Your task to perform on an android device: When is my next meeting? Image 0: 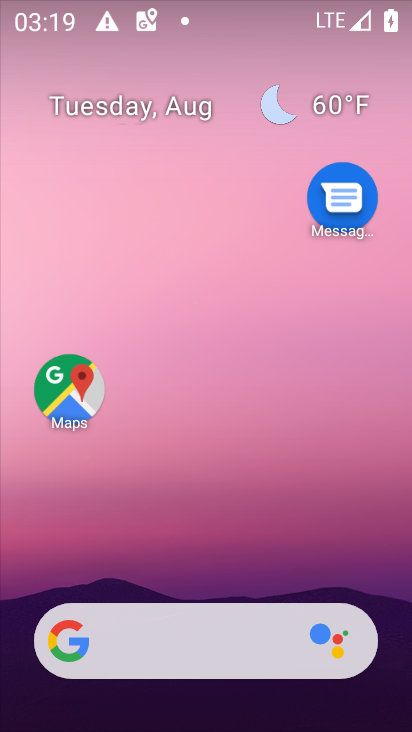
Step 0: drag from (204, 598) to (172, 38)
Your task to perform on an android device: When is my next meeting? Image 1: 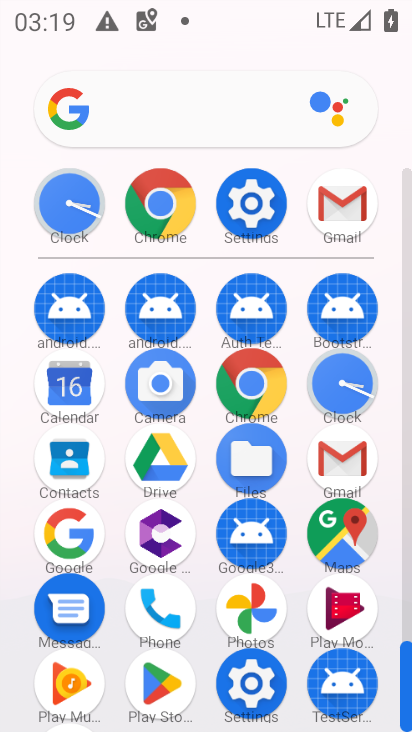
Step 1: click (245, 194)
Your task to perform on an android device: When is my next meeting? Image 2: 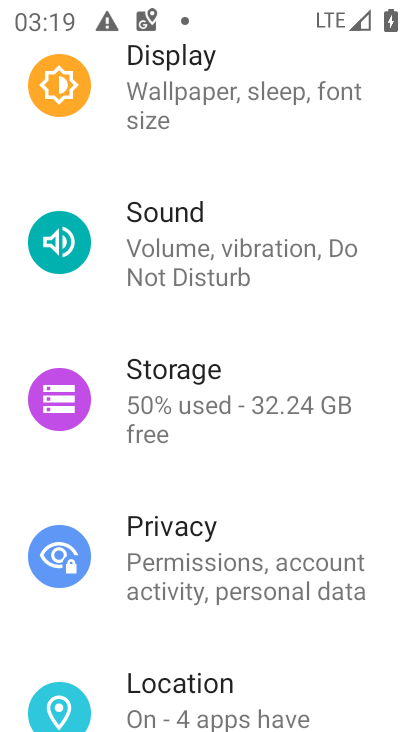
Step 2: press back button
Your task to perform on an android device: When is my next meeting? Image 3: 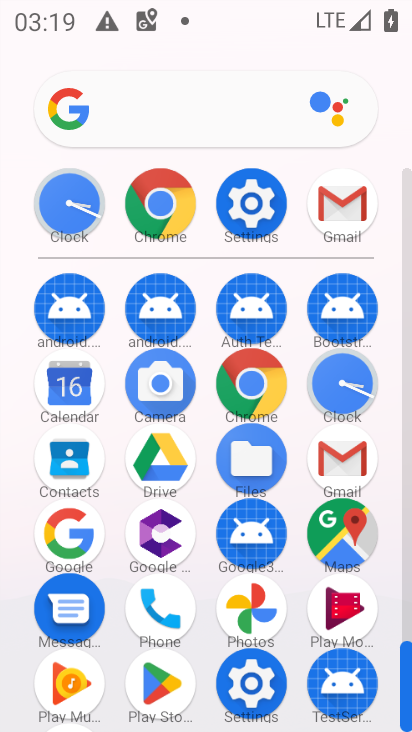
Step 3: click (89, 397)
Your task to perform on an android device: When is my next meeting? Image 4: 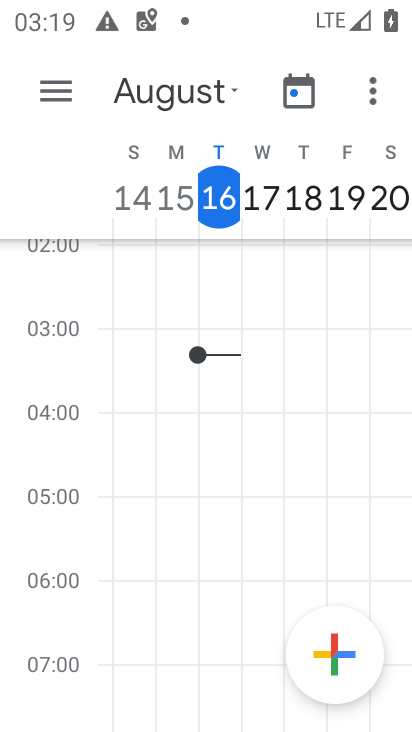
Step 4: task complete